Your task to perform on an android device: add a contact Image 0: 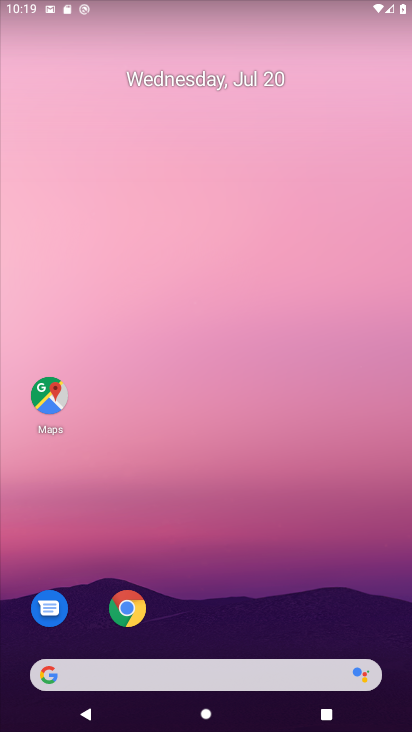
Step 0: drag from (258, 540) to (261, 305)
Your task to perform on an android device: add a contact Image 1: 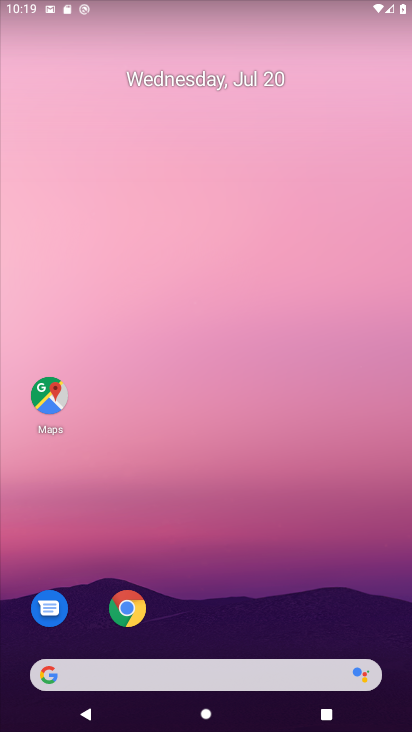
Step 1: drag from (229, 406) to (216, 78)
Your task to perform on an android device: add a contact Image 2: 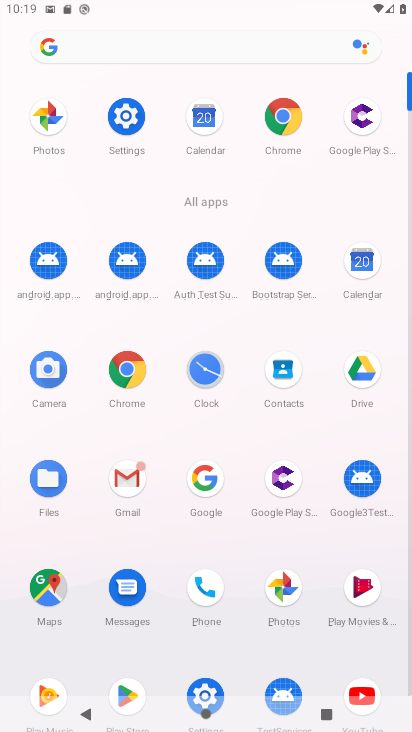
Step 2: click (281, 372)
Your task to perform on an android device: add a contact Image 3: 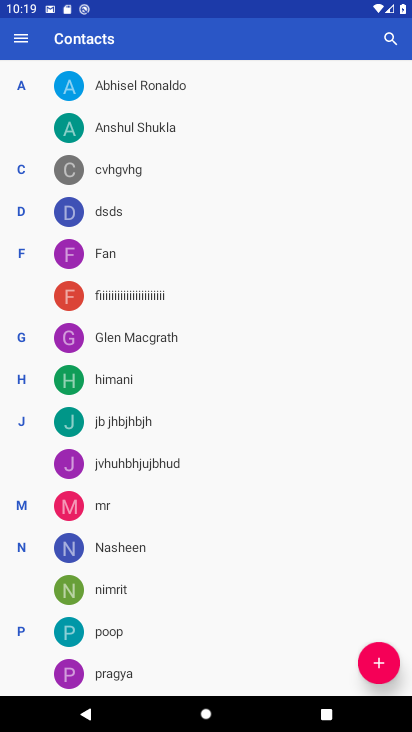
Step 3: click (373, 655)
Your task to perform on an android device: add a contact Image 4: 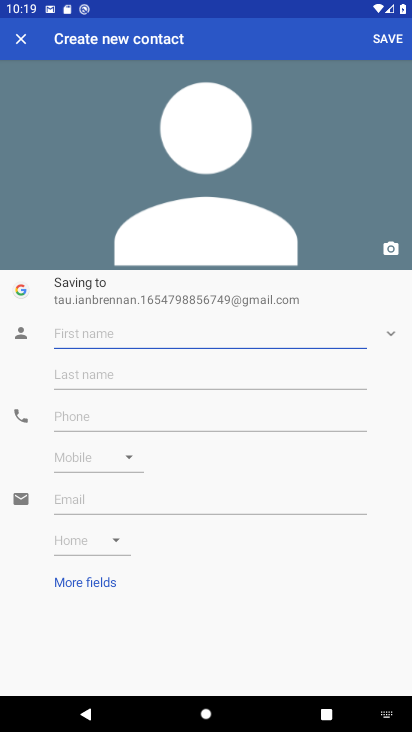
Step 4: click (154, 336)
Your task to perform on an android device: add a contact Image 5: 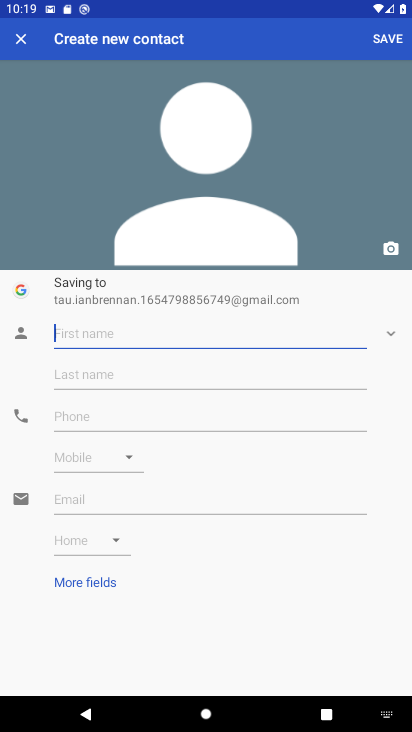
Step 5: type "sff"
Your task to perform on an android device: add a contact Image 6: 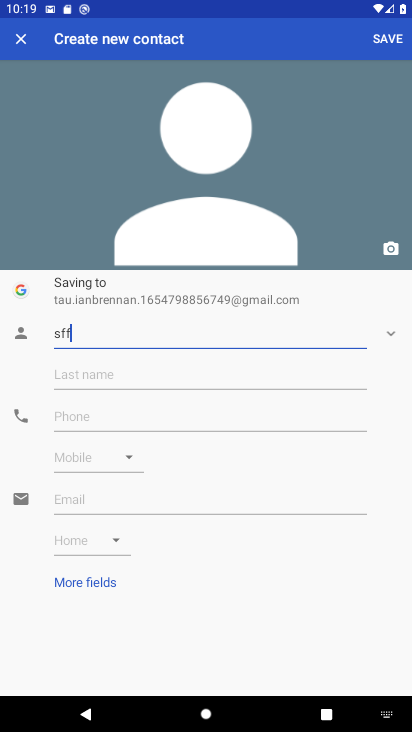
Step 6: press enter
Your task to perform on an android device: add a contact Image 7: 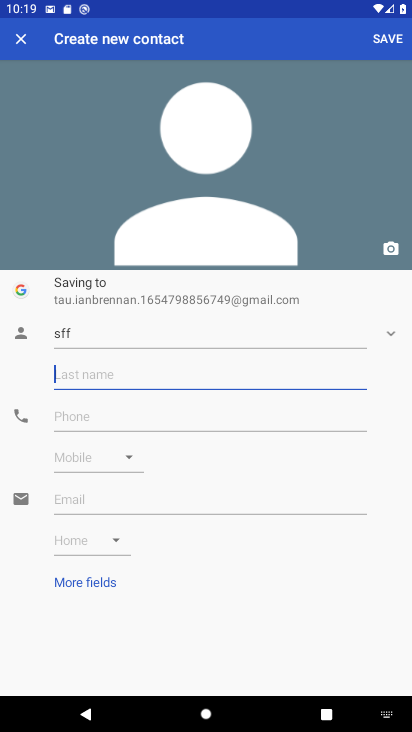
Step 7: click (75, 421)
Your task to perform on an android device: add a contact Image 8: 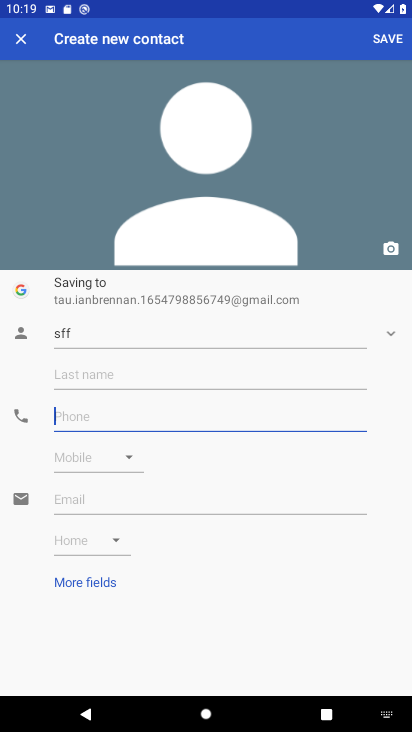
Step 8: click (91, 418)
Your task to perform on an android device: add a contact Image 9: 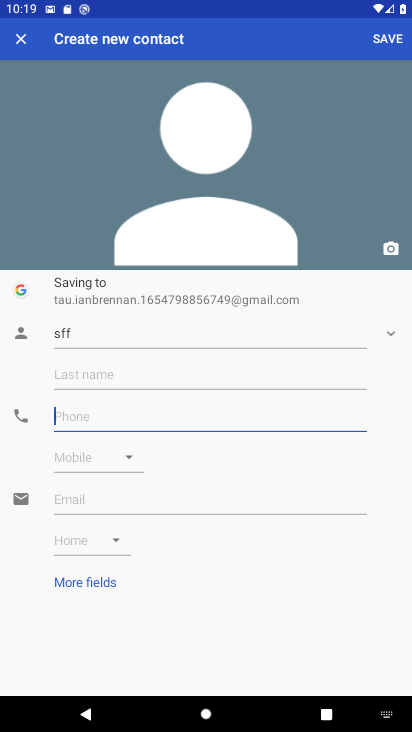
Step 9: type "5432678"
Your task to perform on an android device: add a contact Image 10: 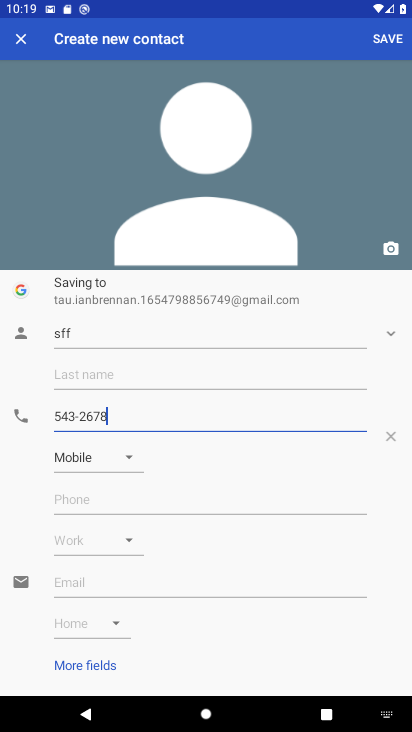
Step 10: press enter
Your task to perform on an android device: add a contact Image 11: 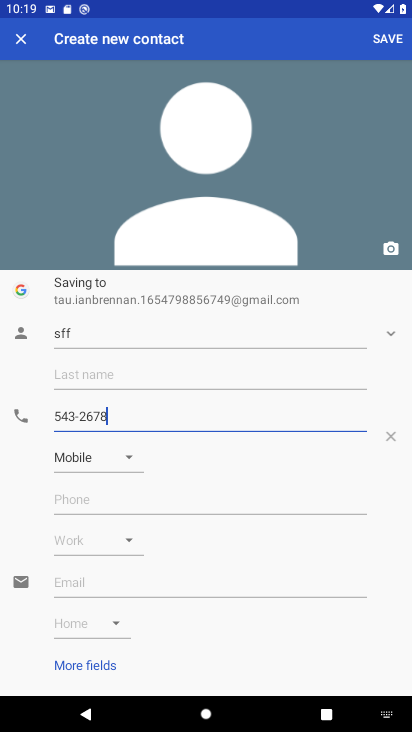
Step 11: type ""
Your task to perform on an android device: add a contact Image 12: 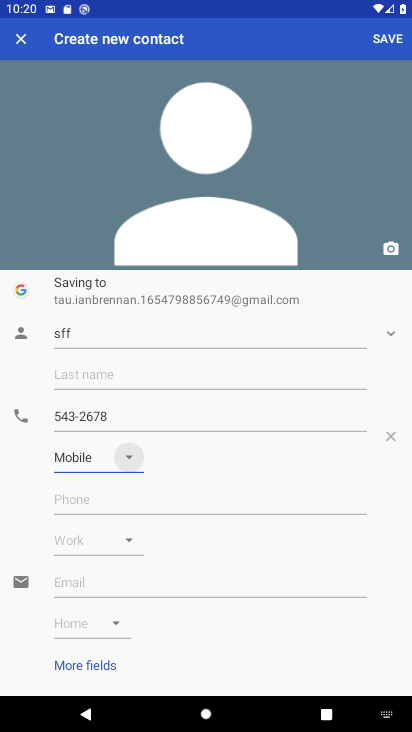
Step 12: click (381, 38)
Your task to perform on an android device: add a contact Image 13: 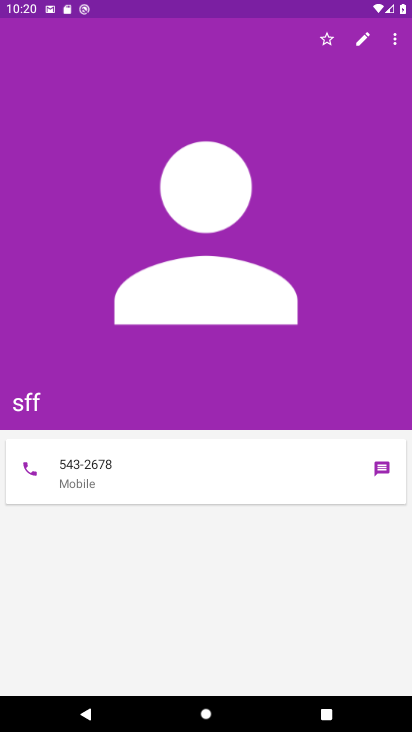
Step 13: task complete